Your task to perform on an android device: Open Android settings Image 0: 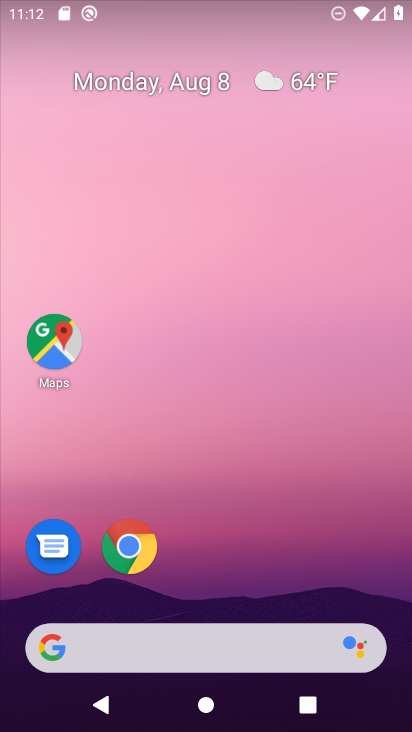
Step 0: press home button
Your task to perform on an android device: Open Android settings Image 1: 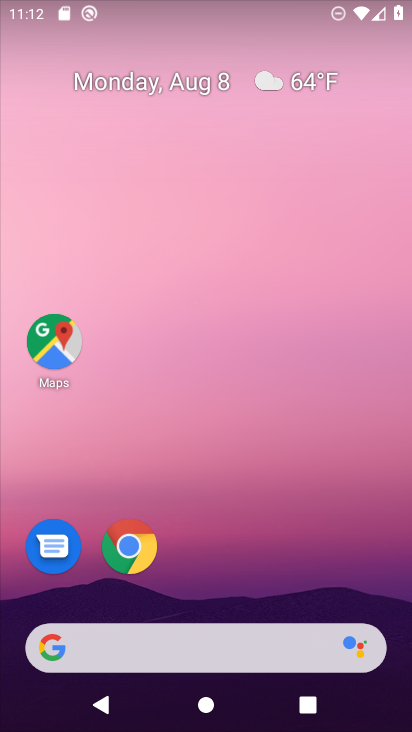
Step 1: drag from (222, 597) to (223, 49)
Your task to perform on an android device: Open Android settings Image 2: 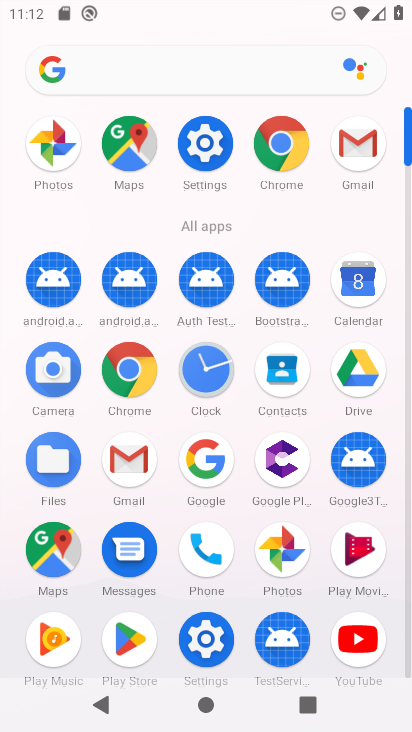
Step 2: click (202, 135)
Your task to perform on an android device: Open Android settings Image 3: 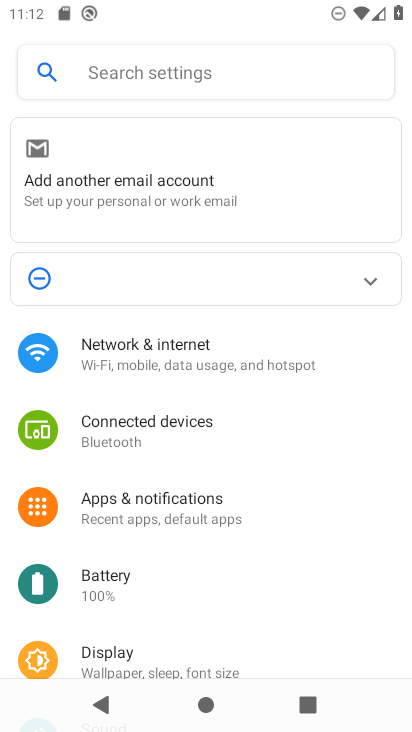
Step 3: drag from (232, 652) to (231, 143)
Your task to perform on an android device: Open Android settings Image 4: 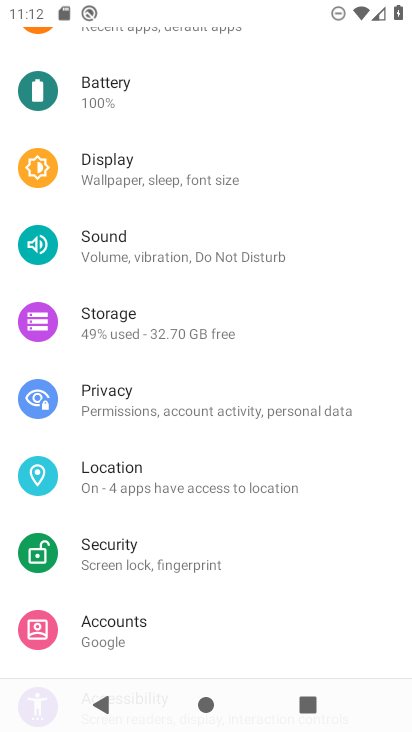
Step 4: drag from (242, 629) to (233, 106)
Your task to perform on an android device: Open Android settings Image 5: 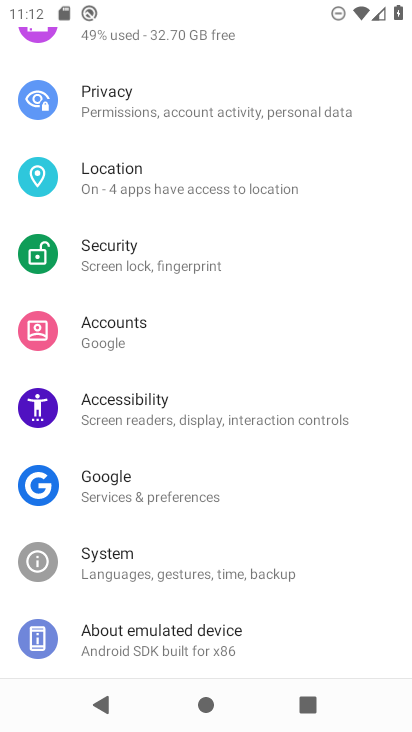
Step 5: click (258, 639)
Your task to perform on an android device: Open Android settings Image 6: 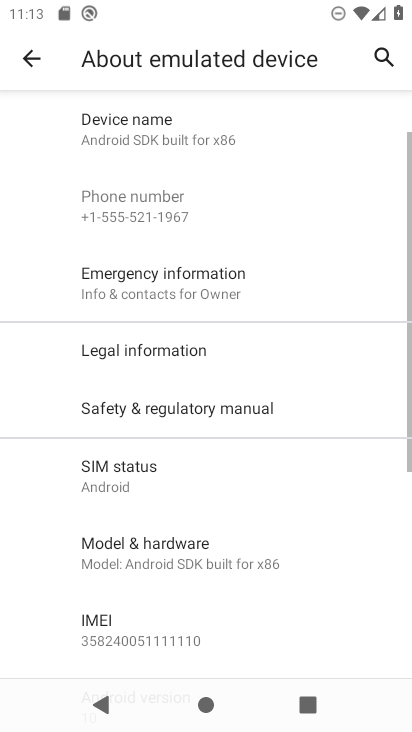
Step 6: drag from (185, 619) to (200, 120)
Your task to perform on an android device: Open Android settings Image 7: 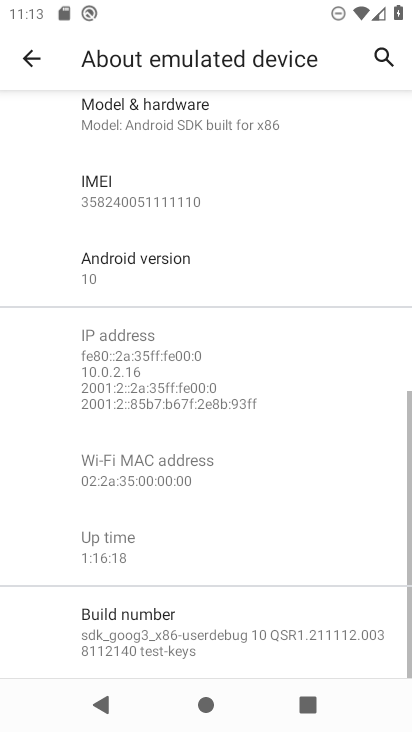
Step 7: click (153, 272)
Your task to perform on an android device: Open Android settings Image 8: 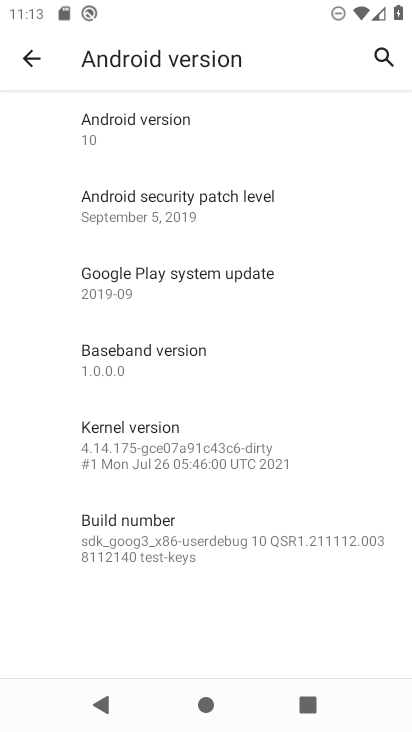
Step 8: task complete